Your task to perform on an android device: turn on notifications settings in the gmail app Image 0: 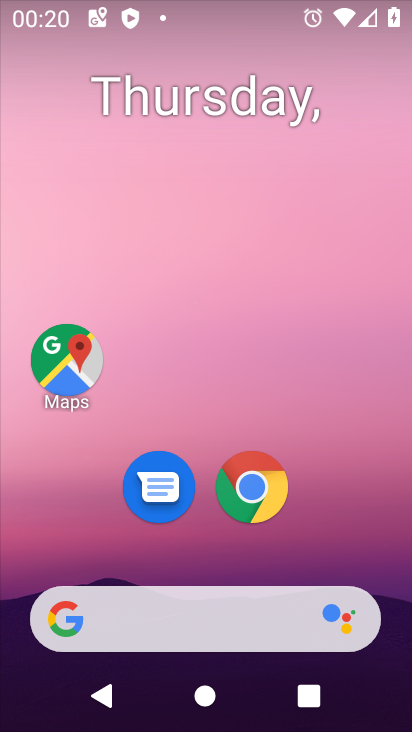
Step 0: drag from (381, 576) to (403, 399)
Your task to perform on an android device: turn on notifications settings in the gmail app Image 1: 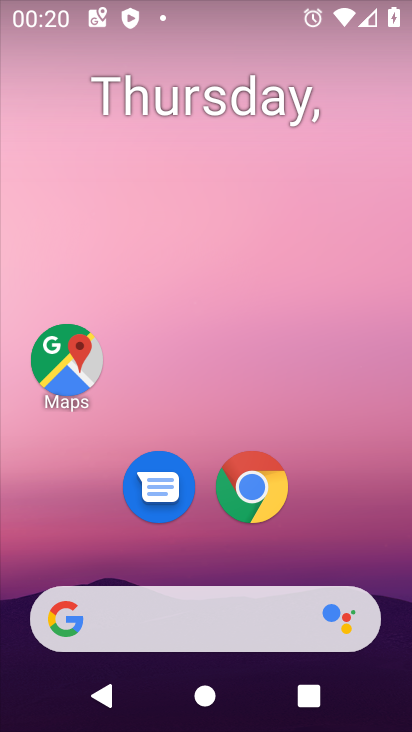
Step 1: drag from (379, 593) to (314, 3)
Your task to perform on an android device: turn on notifications settings in the gmail app Image 2: 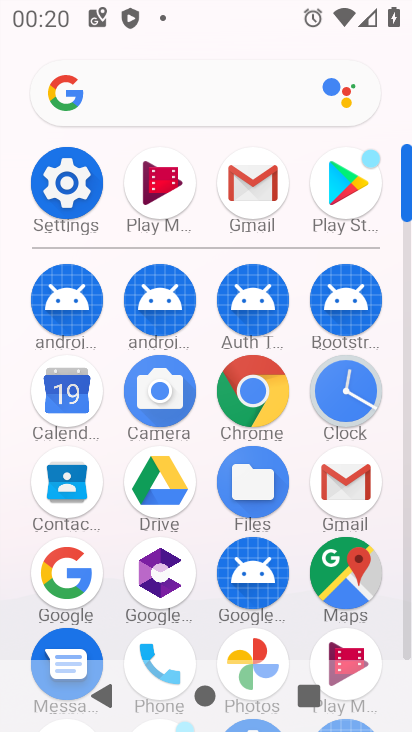
Step 2: click (256, 178)
Your task to perform on an android device: turn on notifications settings in the gmail app Image 3: 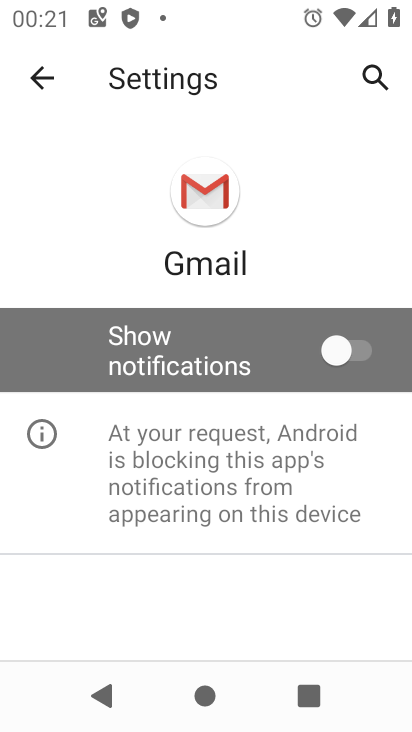
Step 3: click (328, 353)
Your task to perform on an android device: turn on notifications settings in the gmail app Image 4: 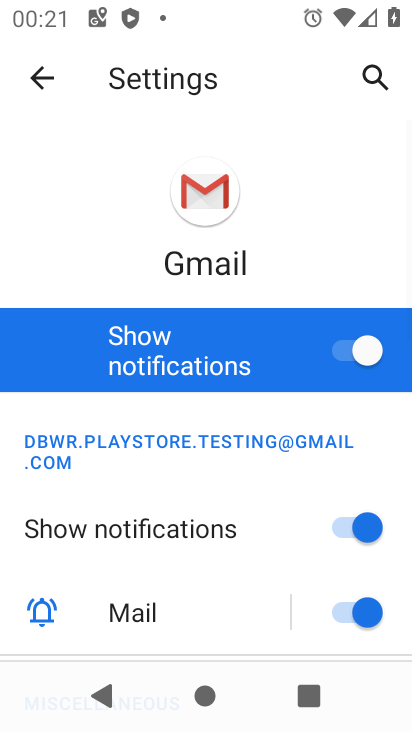
Step 4: task complete